Your task to perform on an android device: Clear all items from cart on bestbuy.com. Add "usb-c to usb-b" to the cart on bestbuy.com, then select checkout. Image 0: 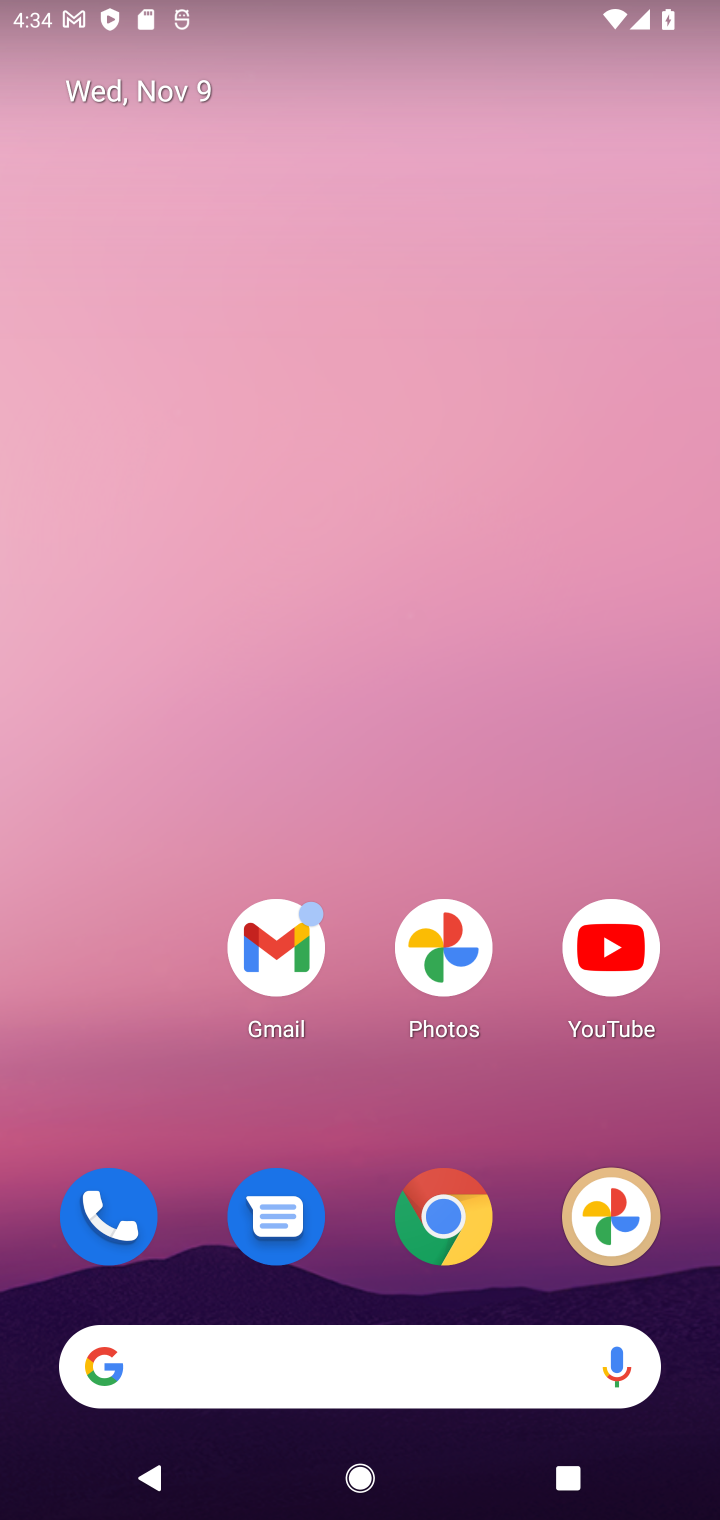
Step 0: drag from (388, 820) to (387, 191)
Your task to perform on an android device: Clear all items from cart on bestbuy.com. Add "usb-c to usb-b" to the cart on bestbuy.com, then select checkout. Image 1: 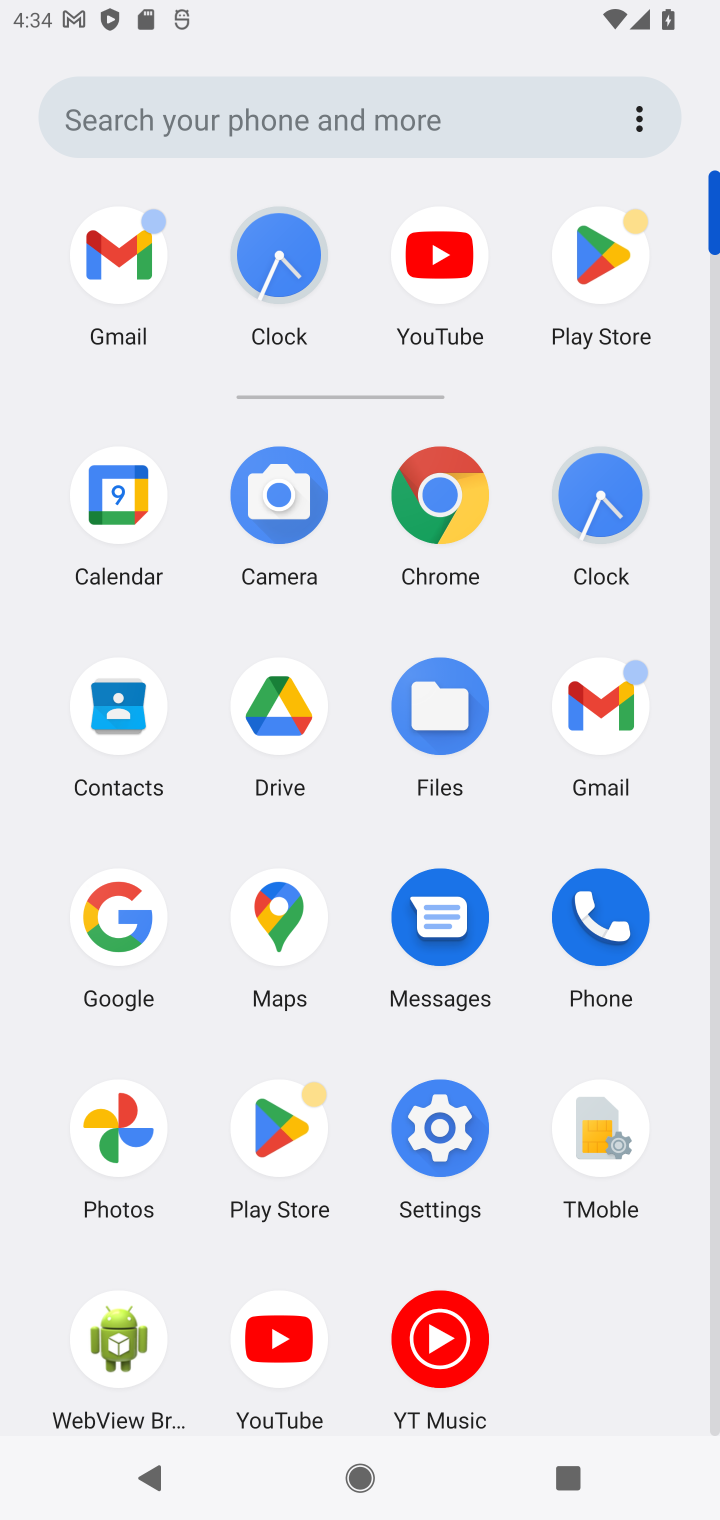
Step 1: click (432, 486)
Your task to perform on an android device: Clear all items from cart on bestbuy.com. Add "usb-c to usb-b" to the cart on bestbuy.com, then select checkout. Image 2: 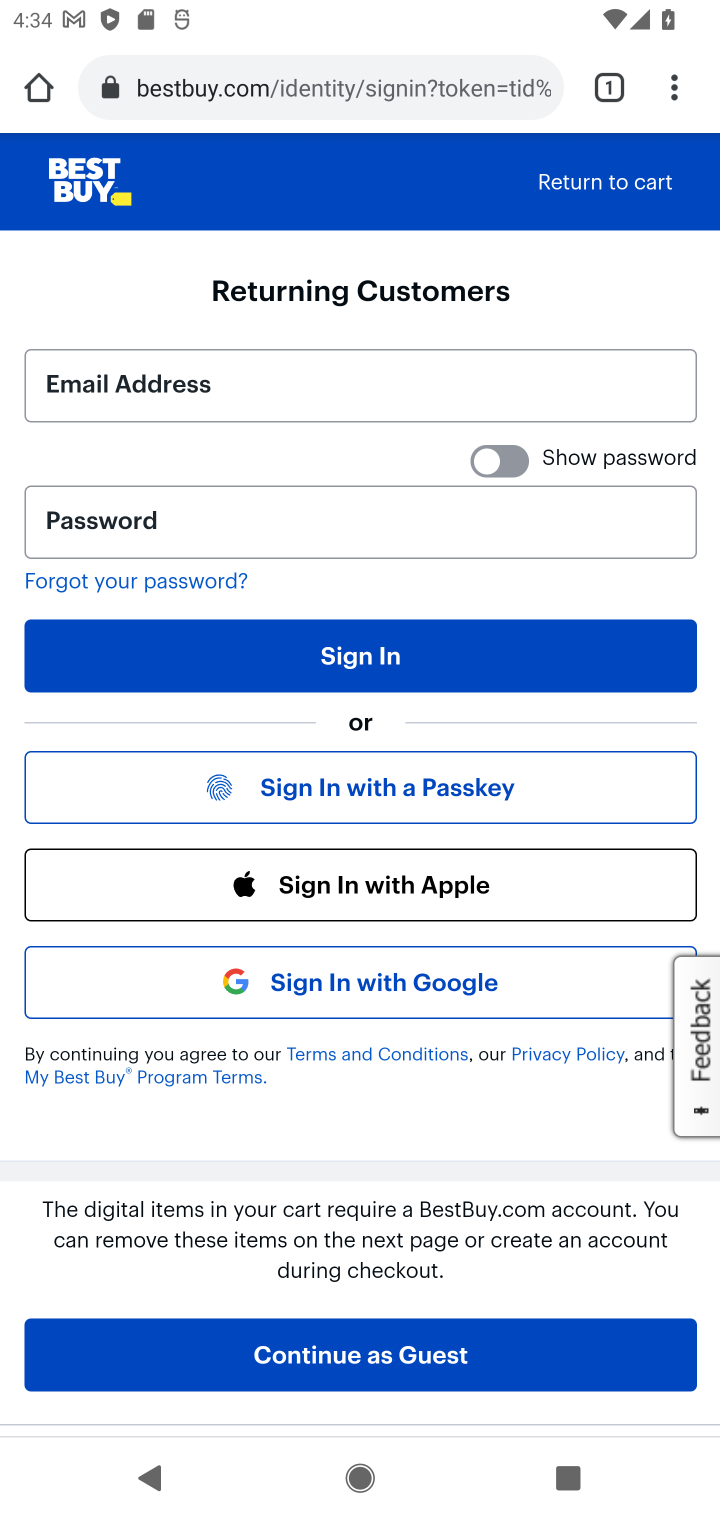
Step 2: click (464, 83)
Your task to perform on an android device: Clear all items from cart on bestbuy.com. Add "usb-c to usb-b" to the cart on bestbuy.com, then select checkout. Image 3: 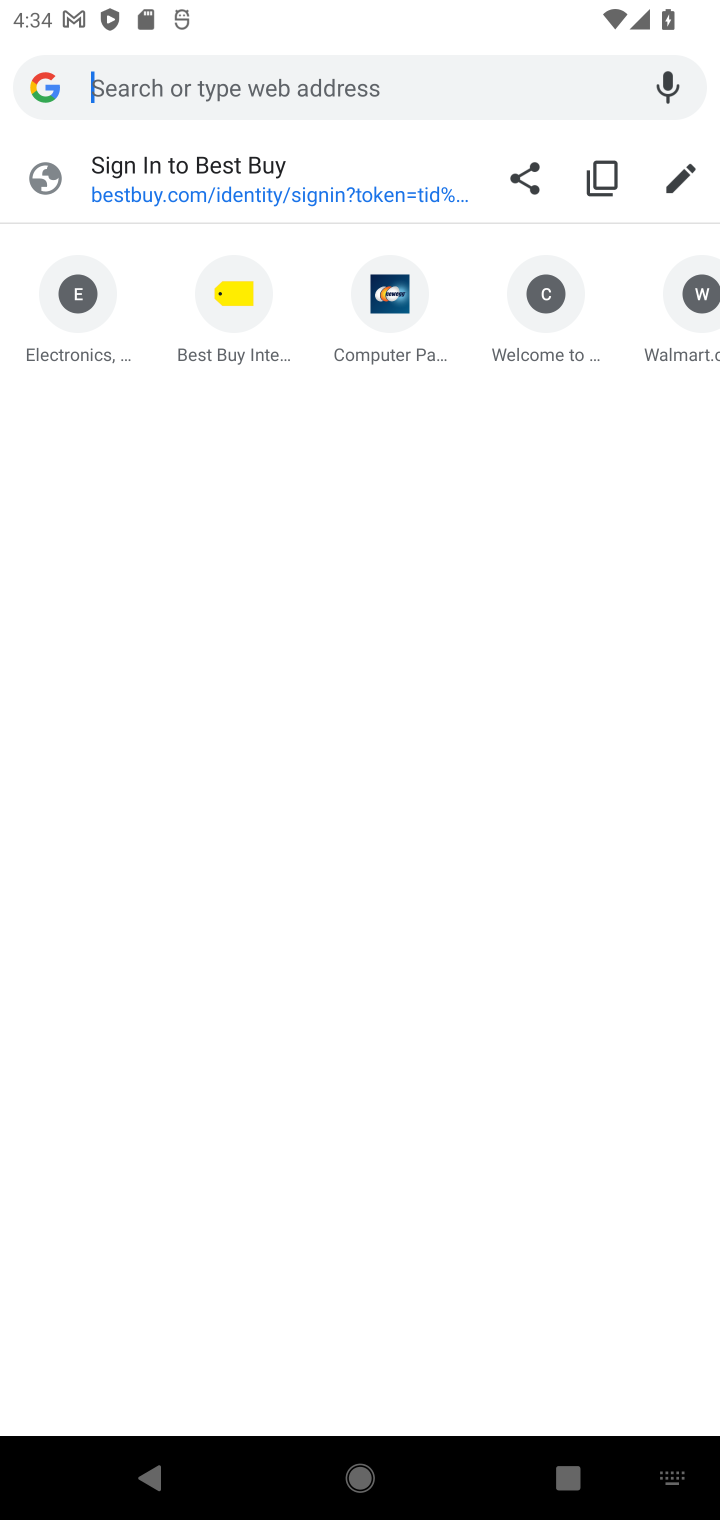
Step 3: type "bestbuy.com"
Your task to perform on an android device: Clear all items from cart on bestbuy.com. Add "usb-c to usb-b" to the cart on bestbuy.com, then select checkout. Image 4: 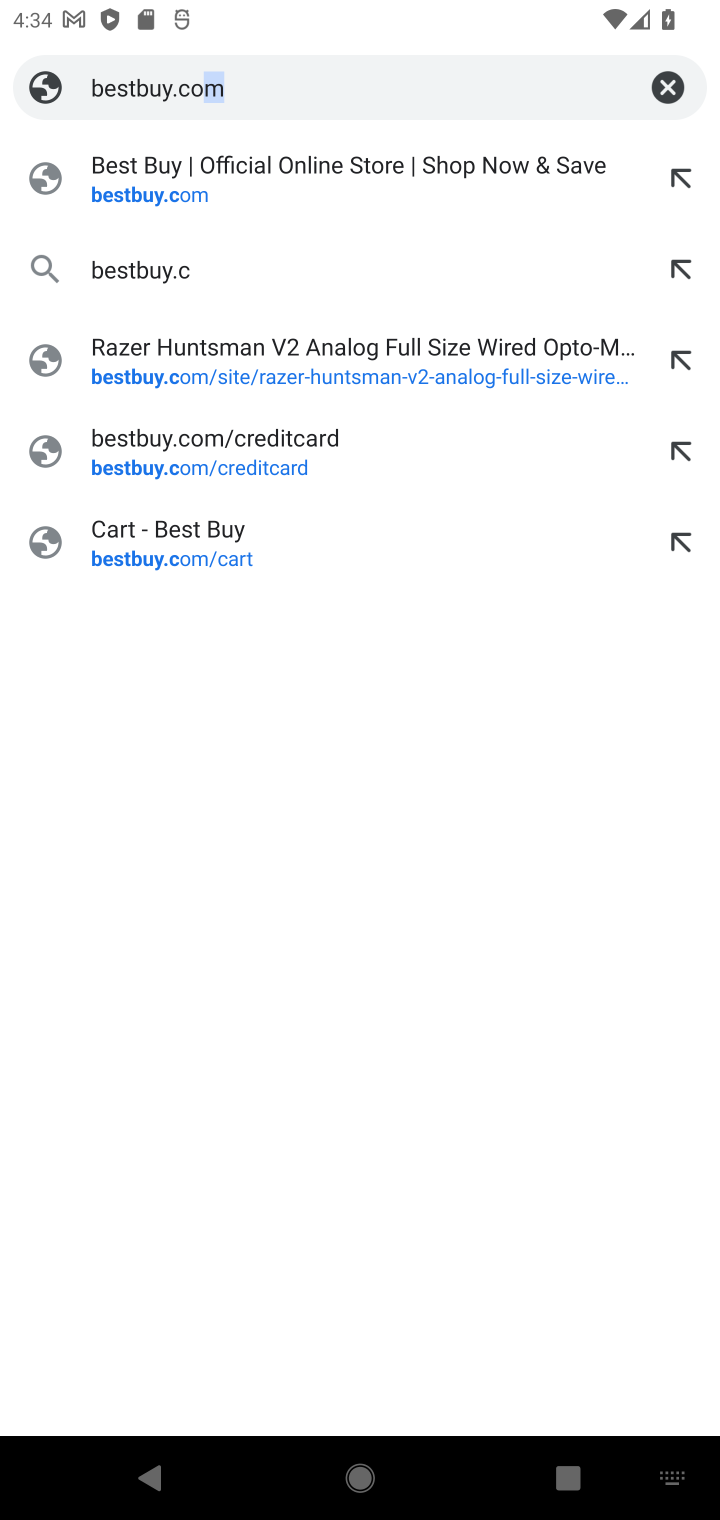
Step 4: press enter
Your task to perform on an android device: Clear all items from cart on bestbuy.com. Add "usb-c to usb-b" to the cart on bestbuy.com, then select checkout. Image 5: 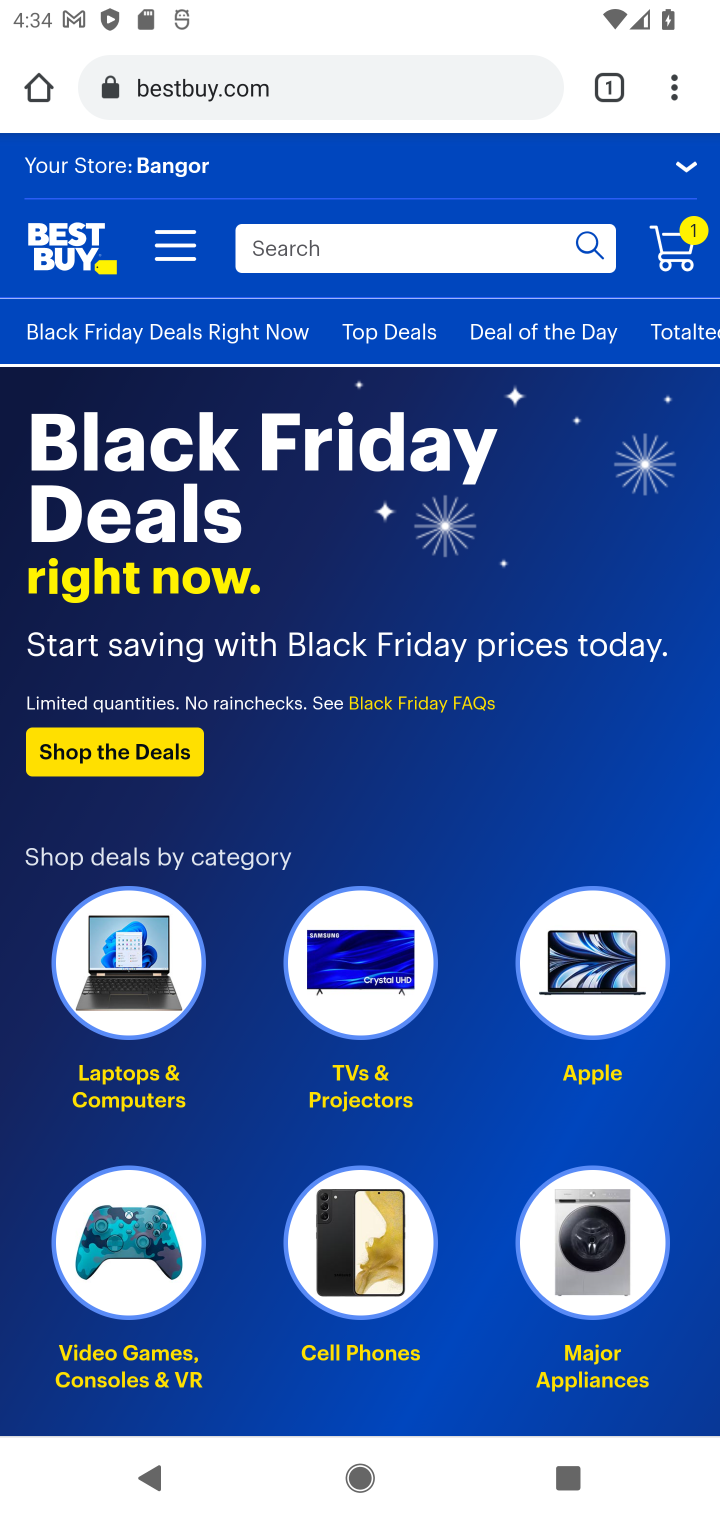
Step 5: click (354, 256)
Your task to perform on an android device: Clear all items from cart on bestbuy.com. Add "usb-c to usb-b" to the cart on bestbuy.com, then select checkout. Image 6: 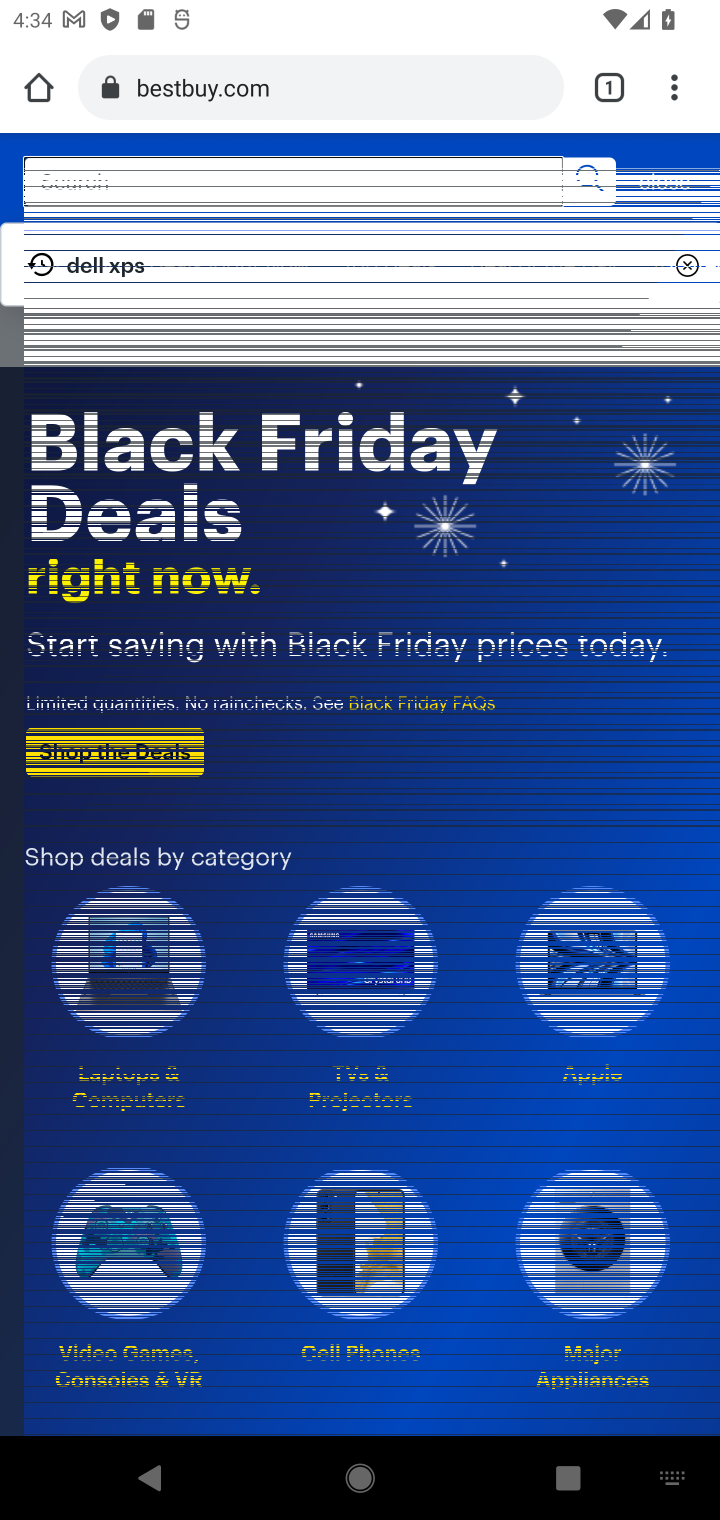
Step 6: type "usb-c to usb-b"
Your task to perform on an android device: Clear all items from cart on bestbuy.com. Add "usb-c to usb-b" to the cart on bestbuy.com, then select checkout. Image 7: 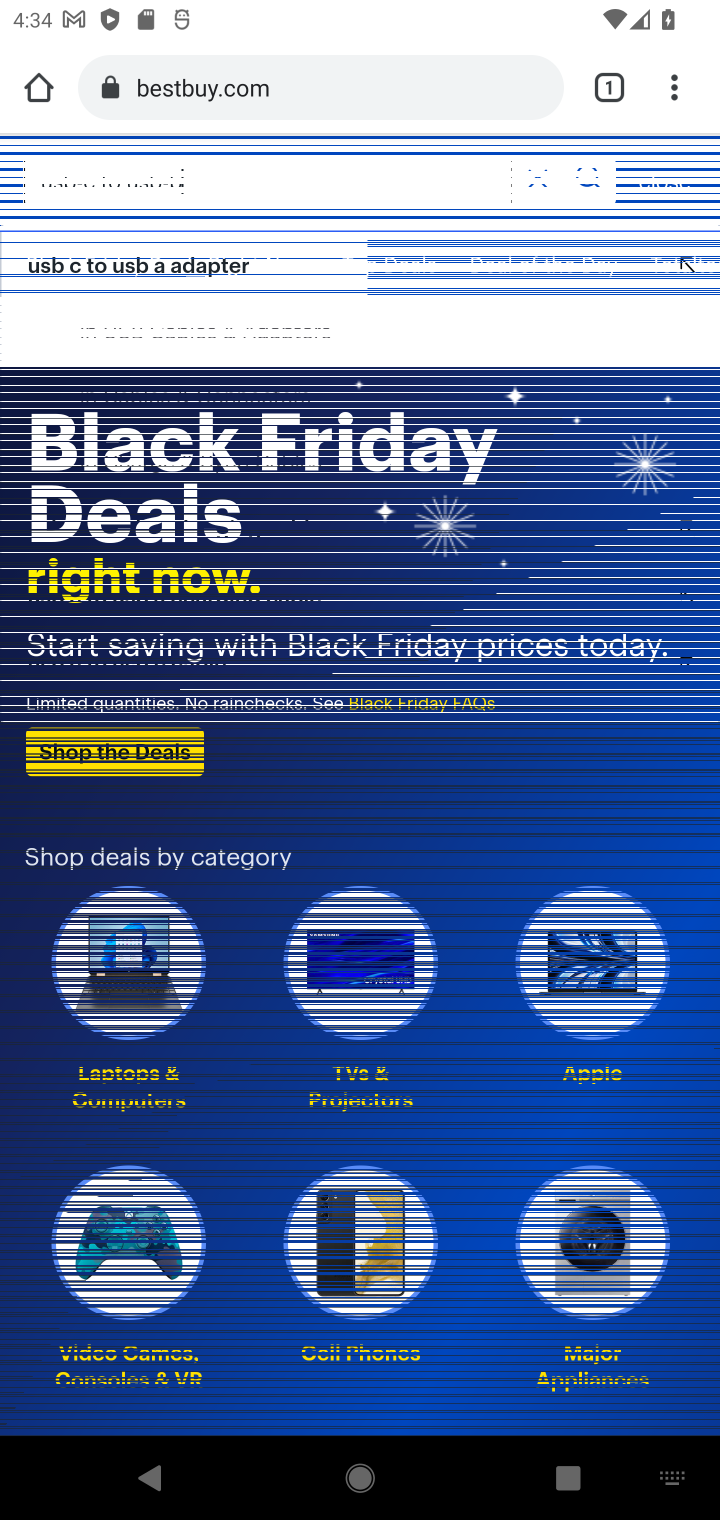
Step 7: press enter
Your task to perform on an android device: Clear all items from cart on bestbuy.com. Add "usb-c to usb-b" to the cart on bestbuy.com, then select checkout. Image 8: 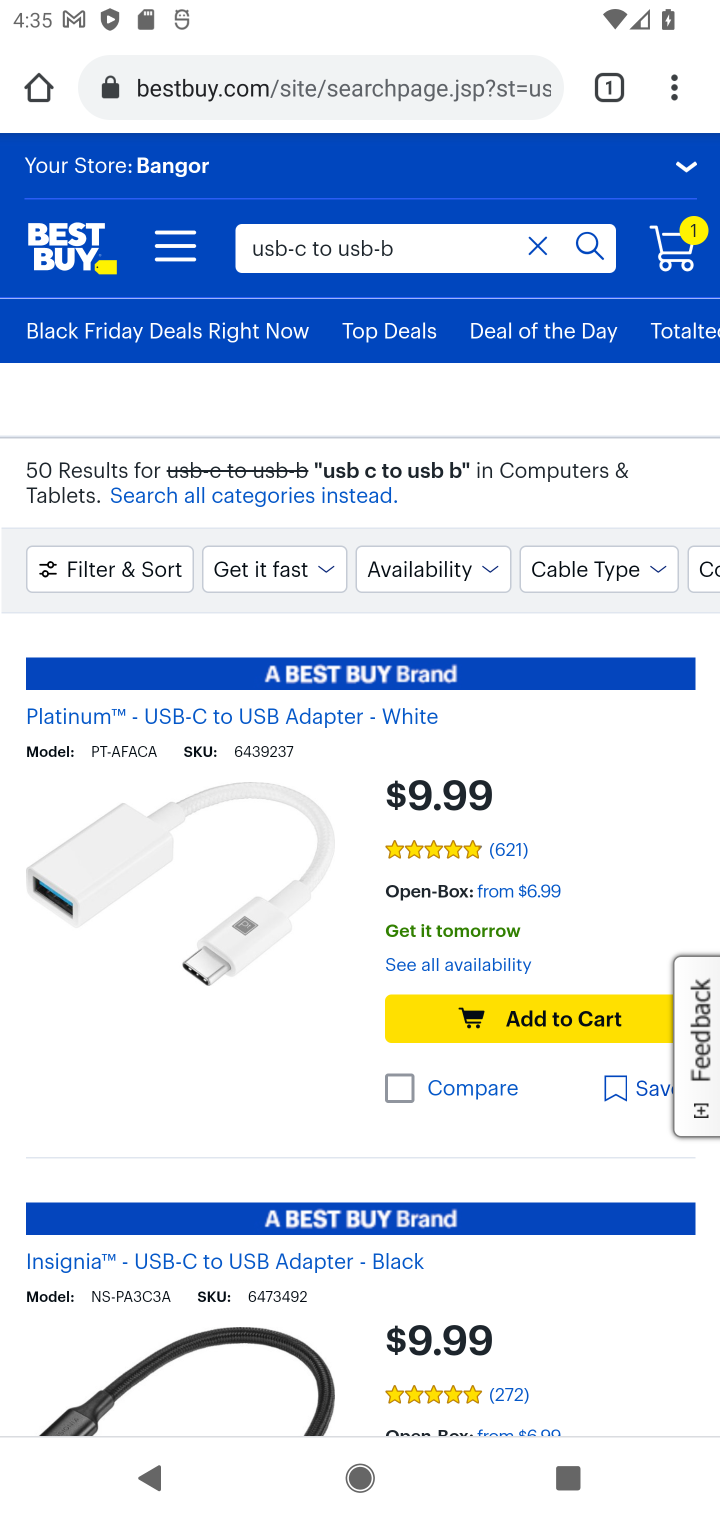
Step 8: click (575, 1008)
Your task to perform on an android device: Clear all items from cart on bestbuy.com. Add "usb-c to usb-b" to the cart on bestbuy.com, then select checkout. Image 9: 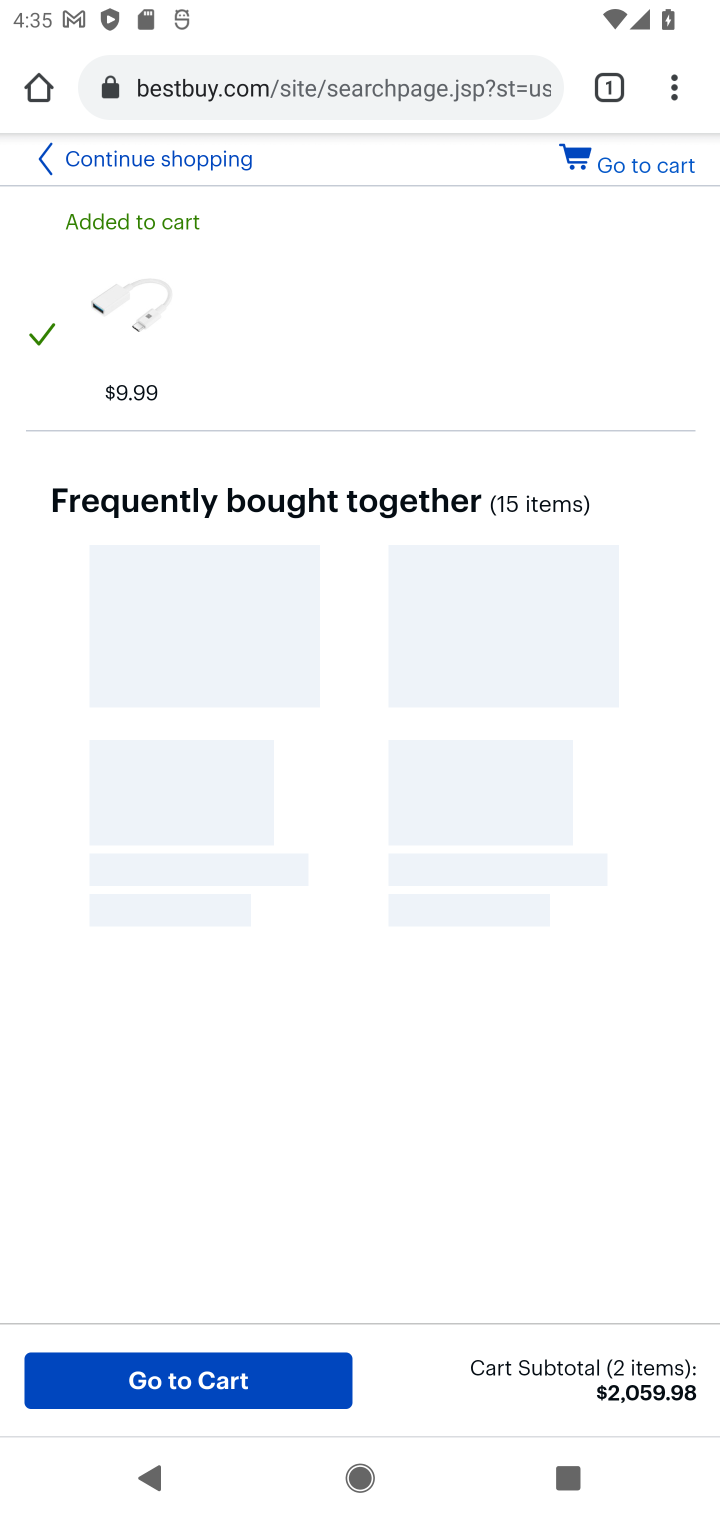
Step 9: click (247, 1376)
Your task to perform on an android device: Clear all items from cart on bestbuy.com. Add "usb-c to usb-b" to the cart on bestbuy.com, then select checkout. Image 10: 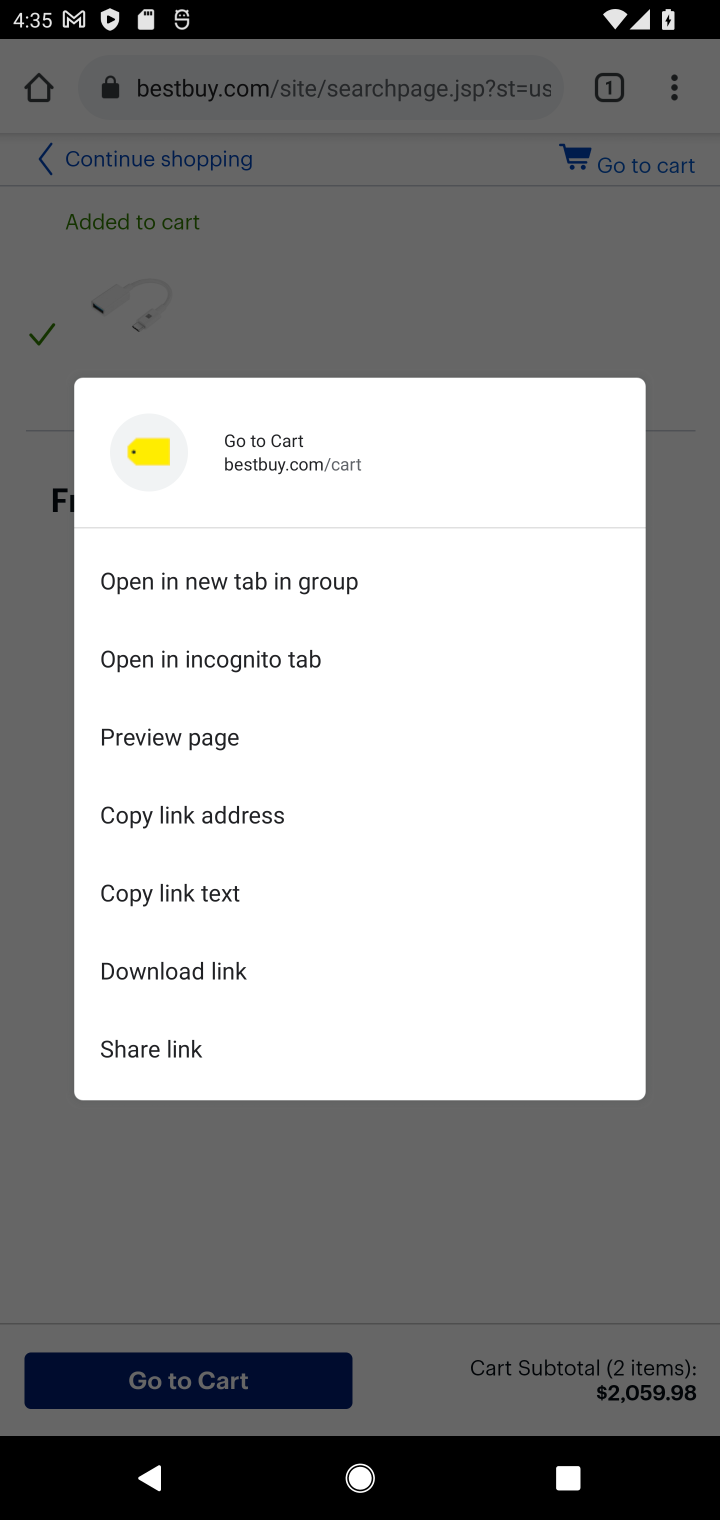
Step 10: click (257, 1403)
Your task to perform on an android device: Clear all items from cart on bestbuy.com. Add "usb-c to usb-b" to the cart on bestbuy.com, then select checkout. Image 11: 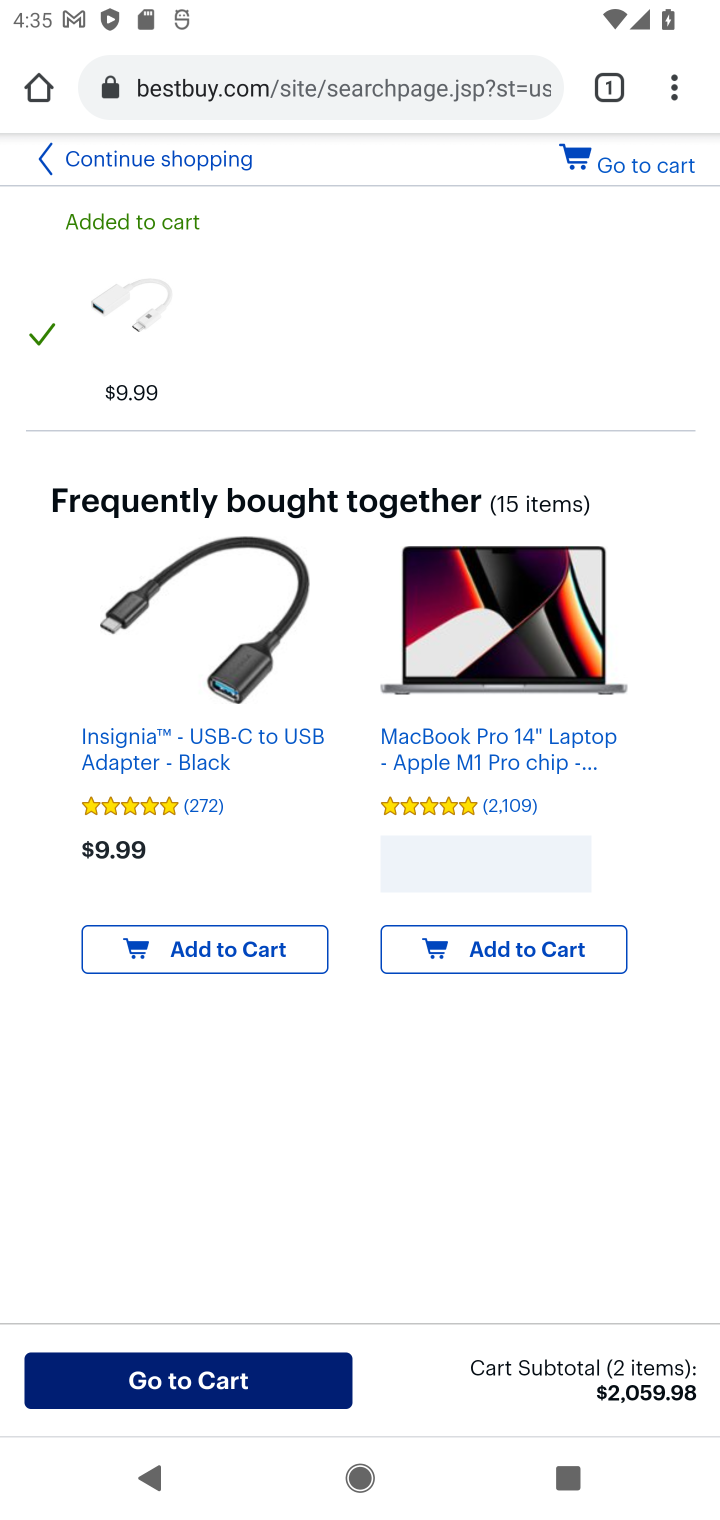
Step 11: click (249, 1395)
Your task to perform on an android device: Clear all items from cart on bestbuy.com. Add "usb-c to usb-b" to the cart on bestbuy.com, then select checkout. Image 12: 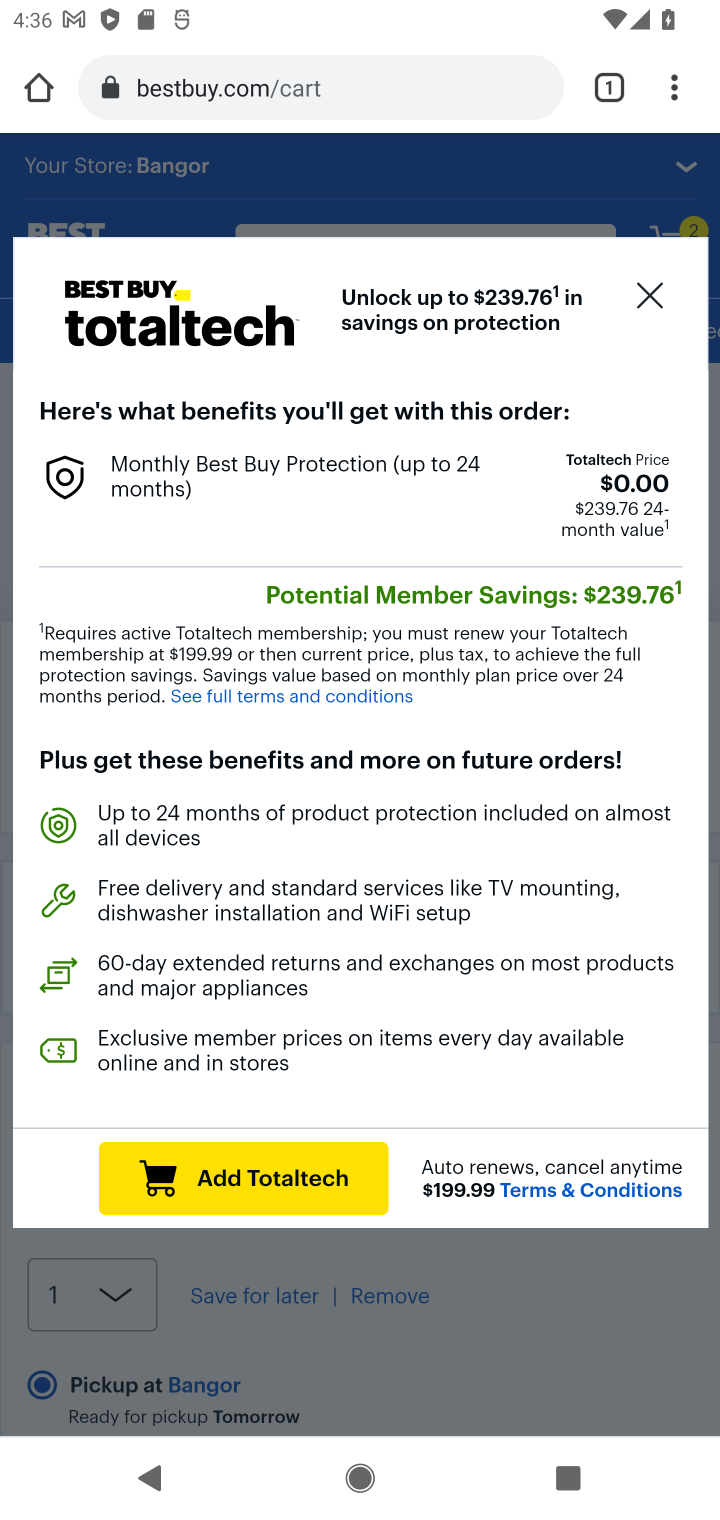
Step 12: click (652, 290)
Your task to perform on an android device: Clear all items from cart on bestbuy.com. Add "usb-c to usb-b" to the cart on bestbuy.com, then select checkout. Image 13: 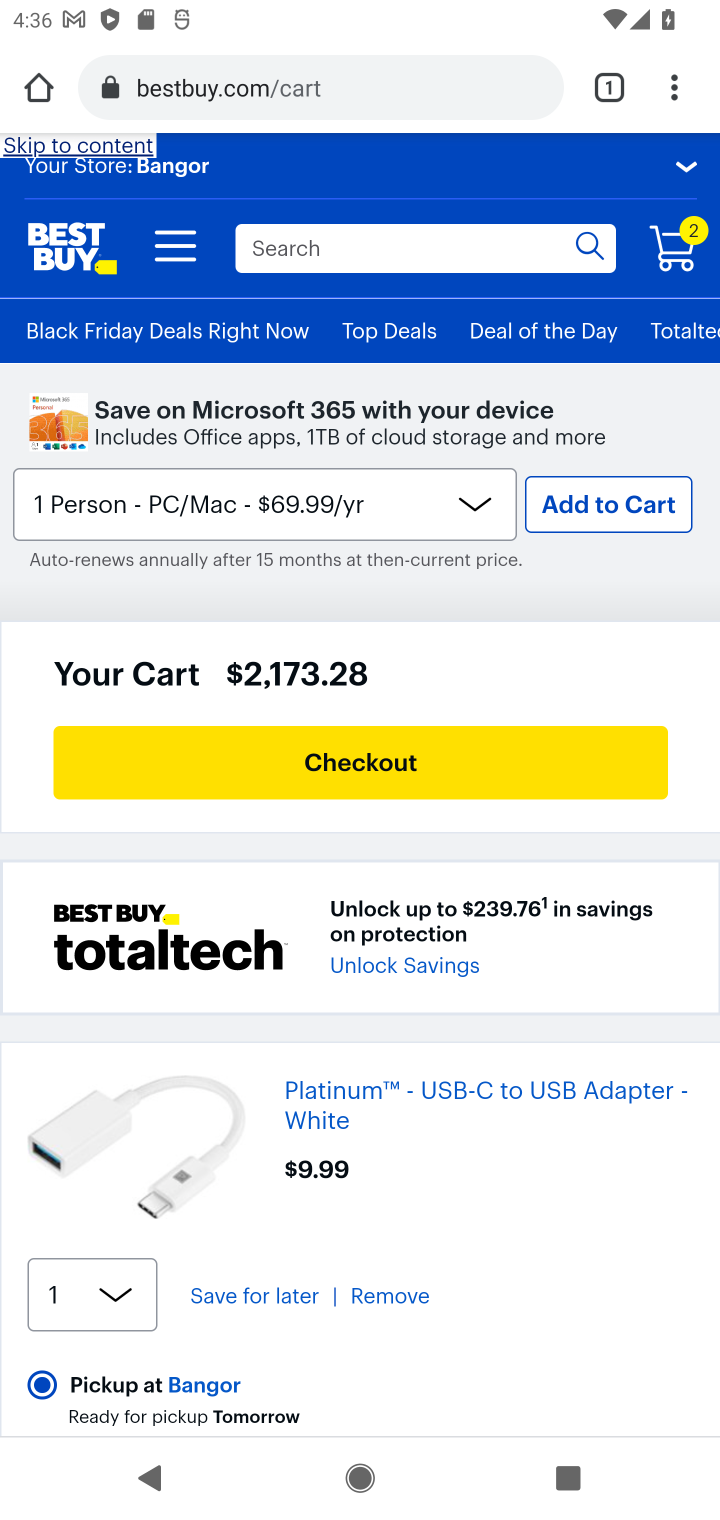
Step 13: click (354, 777)
Your task to perform on an android device: Clear all items from cart on bestbuy.com. Add "usb-c to usb-b" to the cart on bestbuy.com, then select checkout. Image 14: 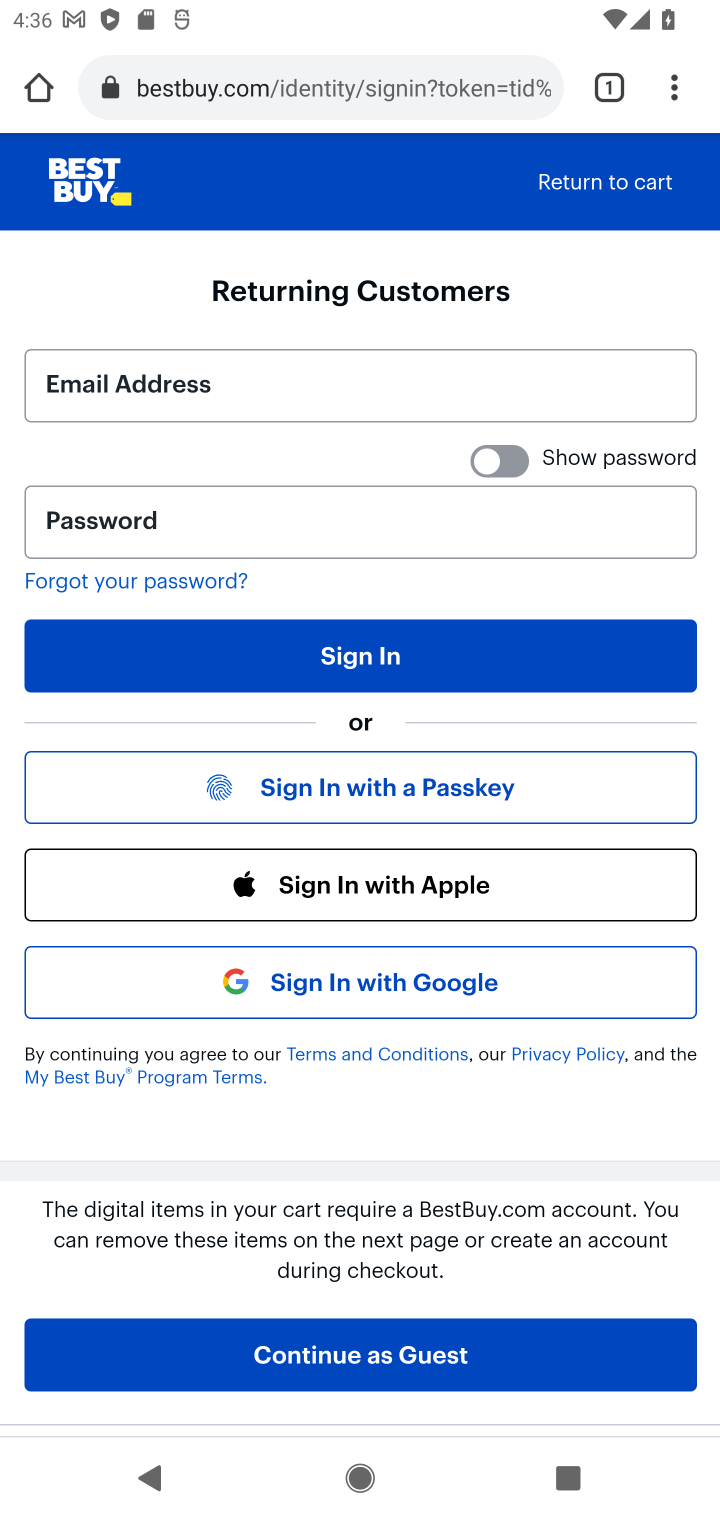
Step 14: task complete